Your task to perform on an android device: Open Maps and search for coffee Image 0: 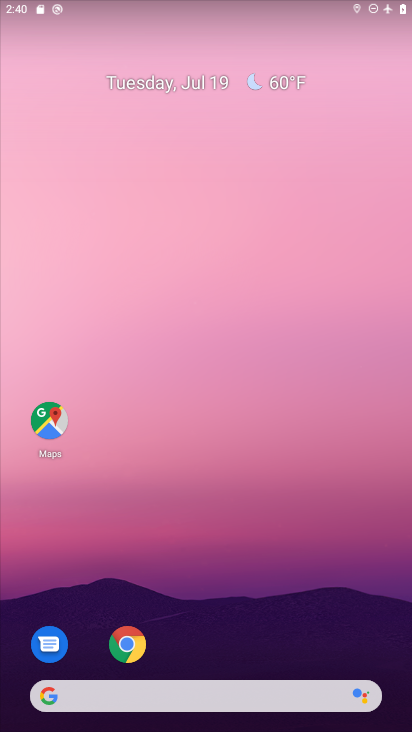
Step 0: drag from (222, 668) to (213, 181)
Your task to perform on an android device: Open Maps and search for coffee Image 1: 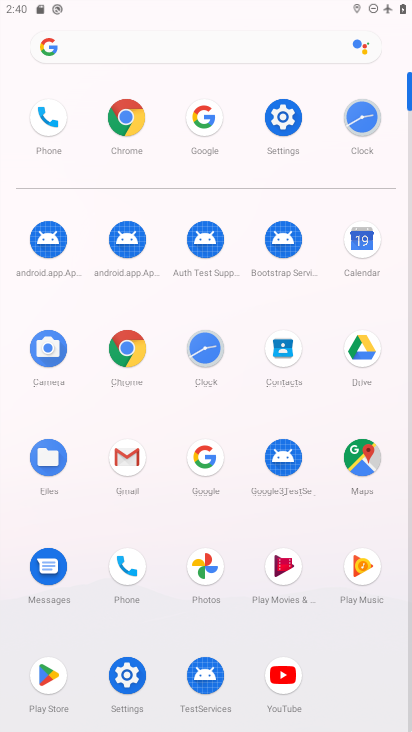
Step 1: click (367, 473)
Your task to perform on an android device: Open Maps and search for coffee Image 2: 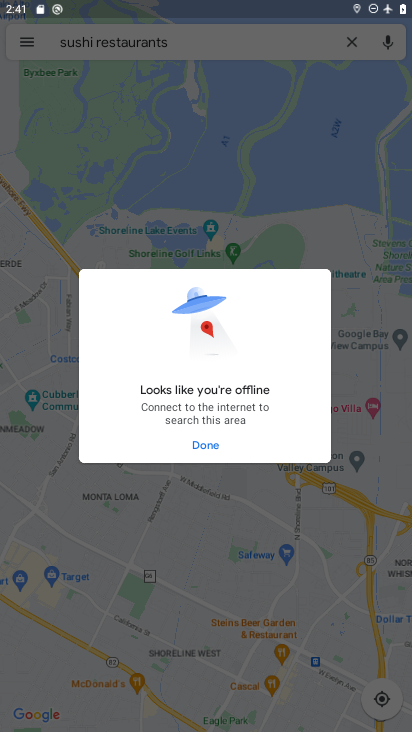
Step 2: click (214, 446)
Your task to perform on an android device: Open Maps and search for coffee Image 3: 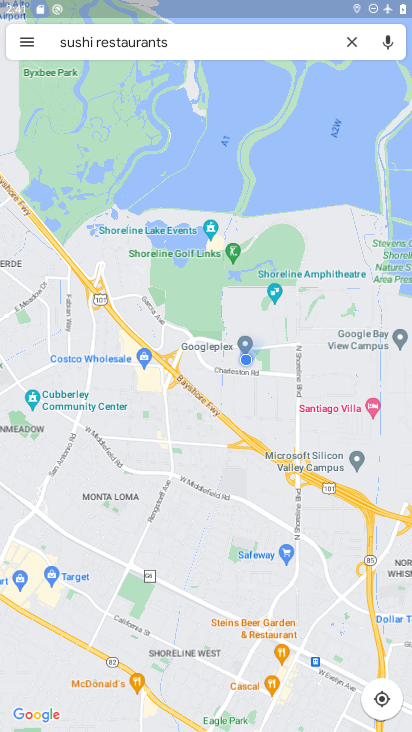
Step 3: click (350, 45)
Your task to perform on an android device: Open Maps and search for coffee Image 4: 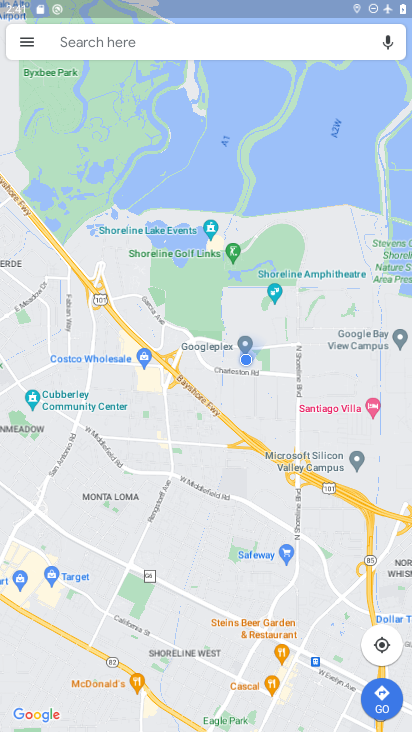
Step 4: click (204, 65)
Your task to perform on an android device: Open Maps and search for coffee Image 5: 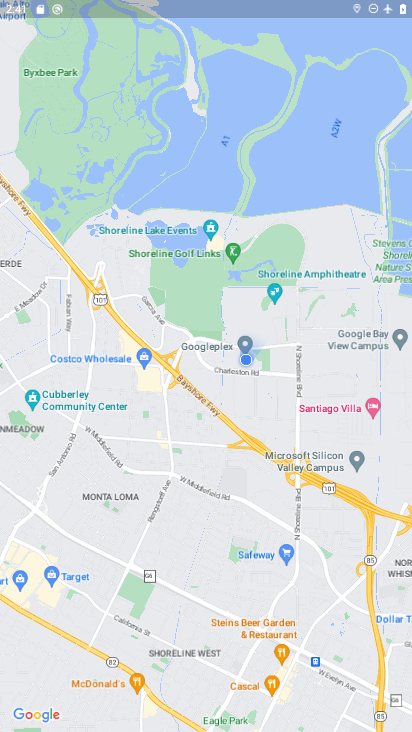
Step 5: task complete